Your task to perform on an android device: Open sound settings Image 0: 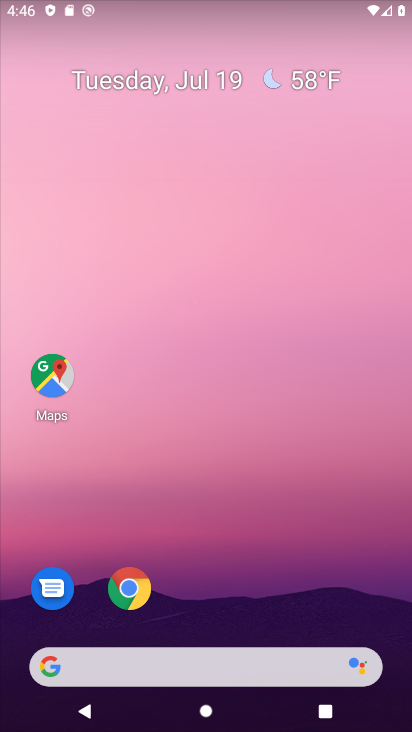
Step 0: click (259, 89)
Your task to perform on an android device: Open sound settings Image 1: 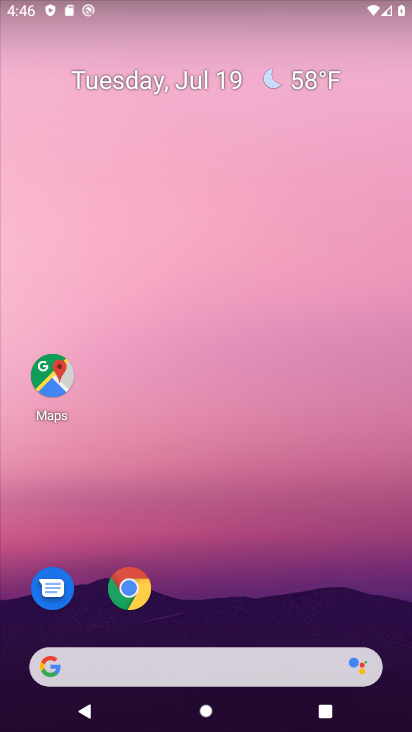
Step 1: drag from (318, 551) to (183, 33)
Your task to perform on an android device: Open sound settings Image 2: 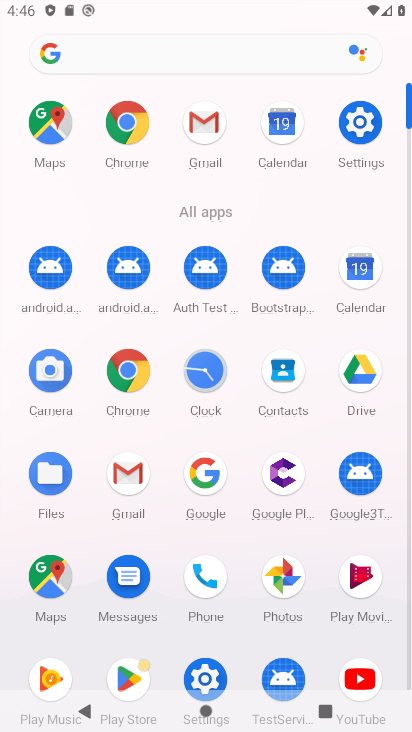
Step 2: click (351, 125)
Your task to perform on an android device: Open sound settings Image 3: 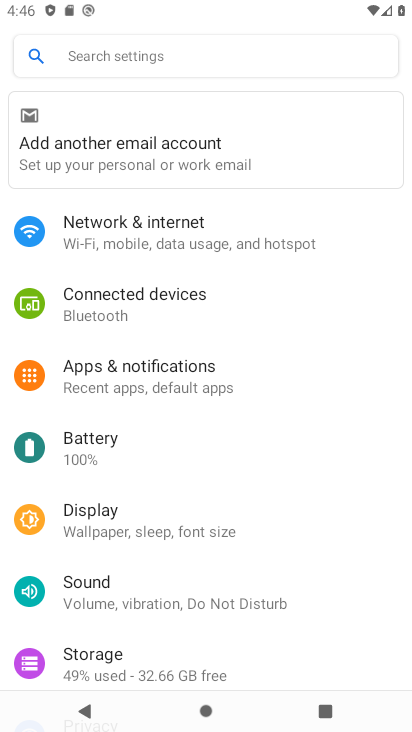
Step 3: click (117, 600)
Your task to perform on an android device: Open sound settings Image 4: 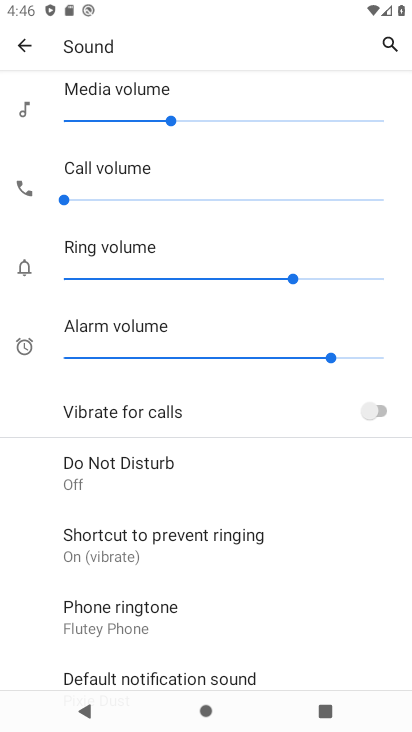
Step 4: task complete